Your task to perform on an android device: turn on sleep mode Image 0: 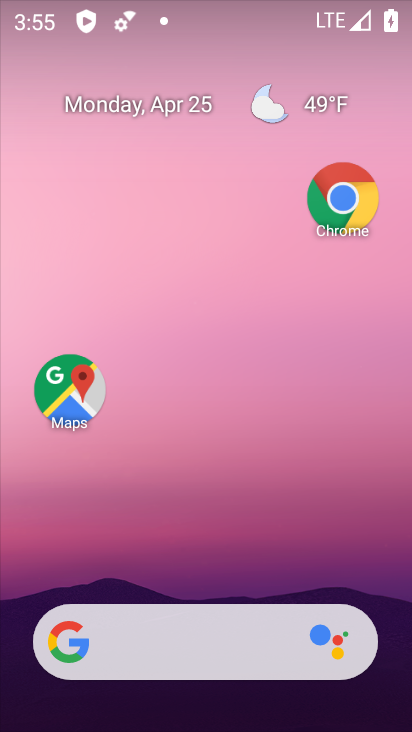
Step 0: click (347, 135)
Your task to perform on an android device: turn on sleep mode Image 1: 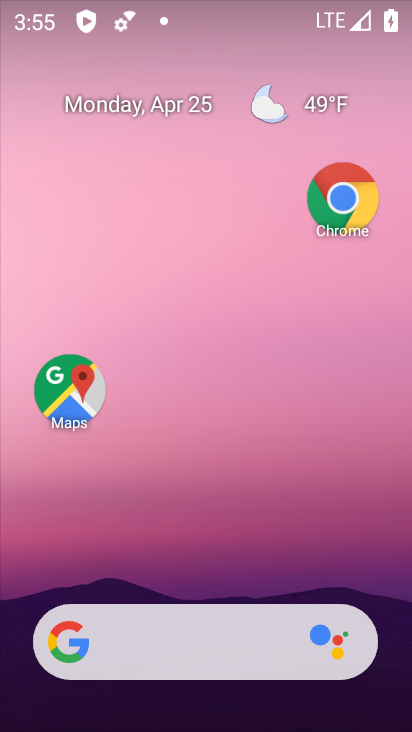
Step 1: drag from (181, 669) to (407, 7)
Your task to perform on an android device: turn on sleep mode Image 2: 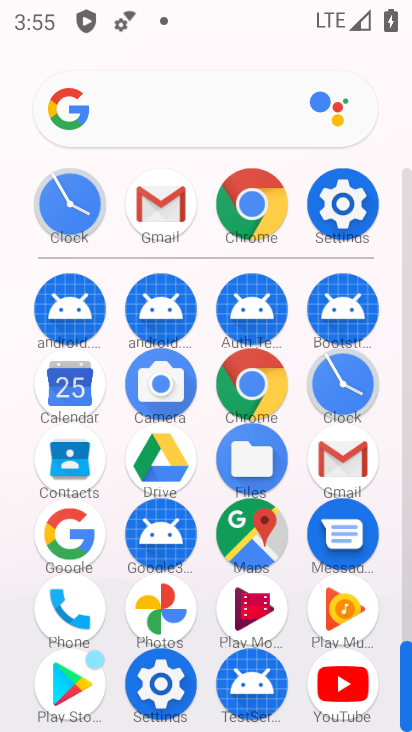
Step 2: click (354, 209)
Your task to perform on an android device: turn on sleep mode Image 3: 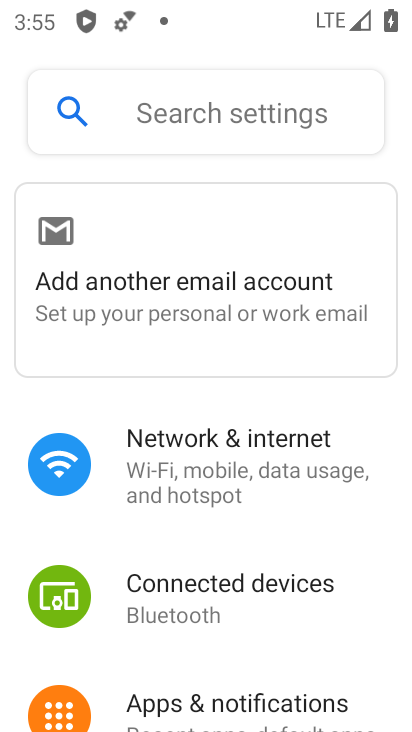
Step 3: drag from (213, 647) to (385, 114)
Your task to perform on an android device: turn on sleep mode Image 4: 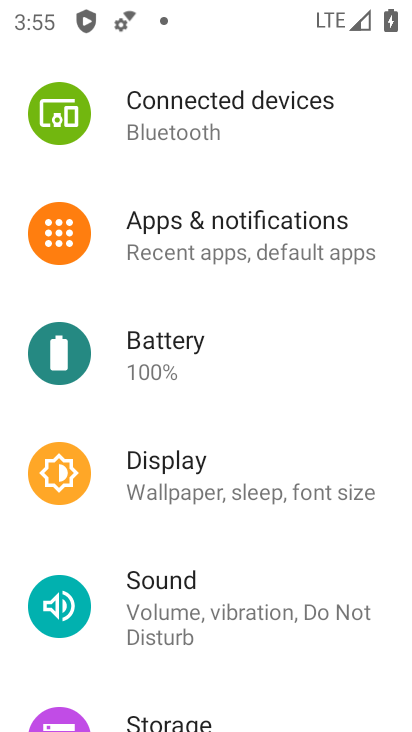
Step 4: click (207, 490)
Your task to perform on an android device: turn on sleep mode Image 5: 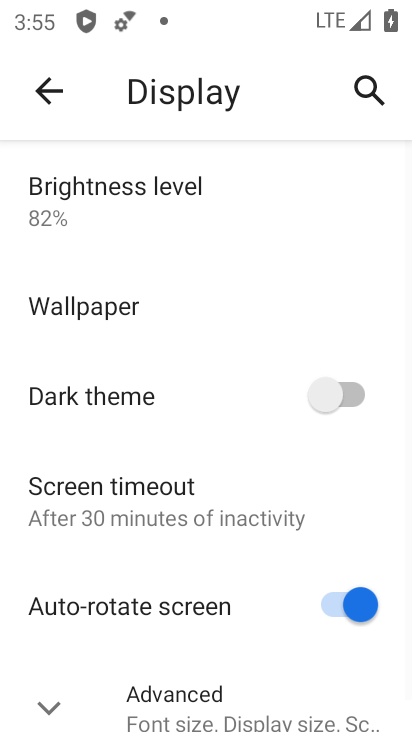
Step 5: task complete